Your task to perform on an android device: see creations saved in the google photos Image 0: 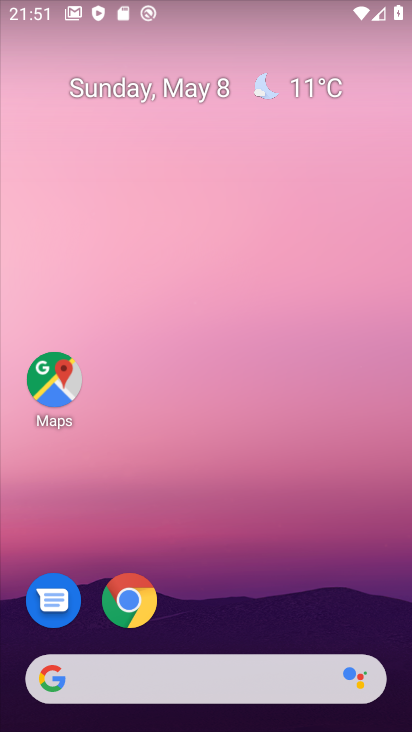
Step 0: drag from (214, 632) to (276, 139)
Your task to perform on an android device: see creations saved in the google photos Image 1: 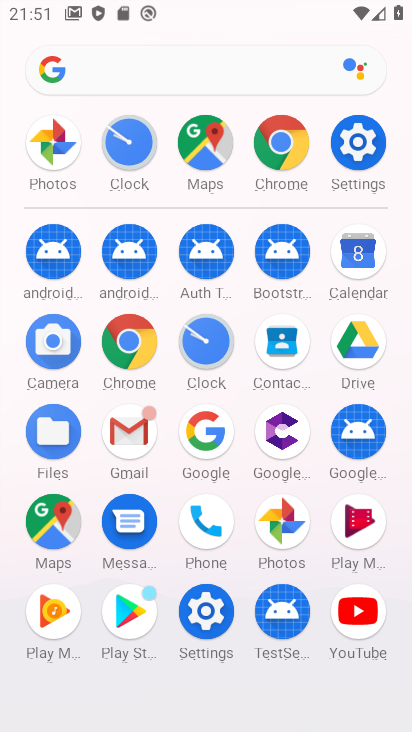
Step 1: click (64, 146)
Your task to perform on an android device: see creations saved in the google photos Image 2: 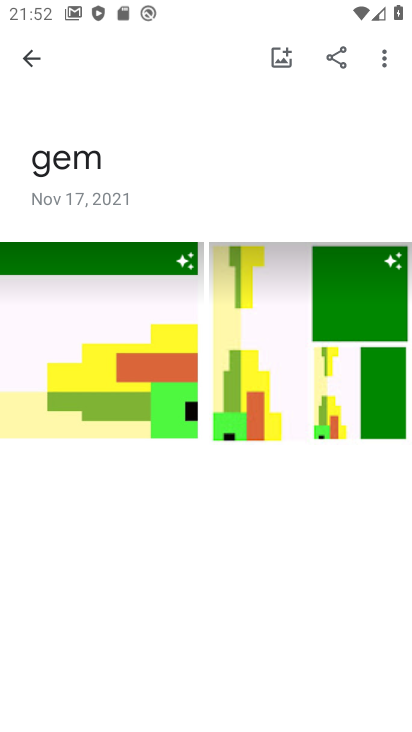
Step 2: click (46, 49)
Your task to perform on an android device: see creations saved in the google photos Image 3: 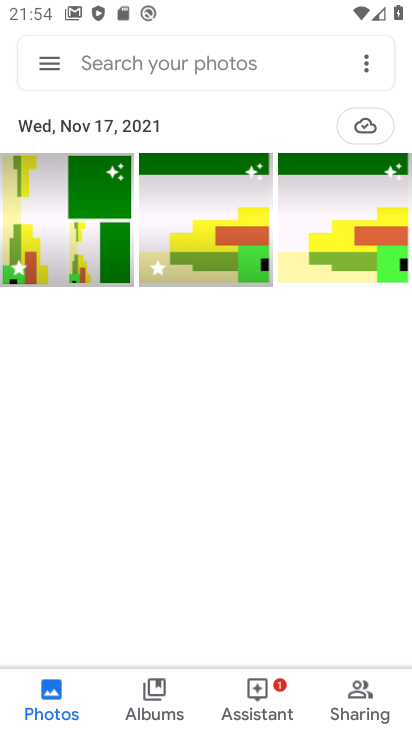
Step 3: task complete